Your task to perform on an android device: move a message to another label in the gmail app Image 0: 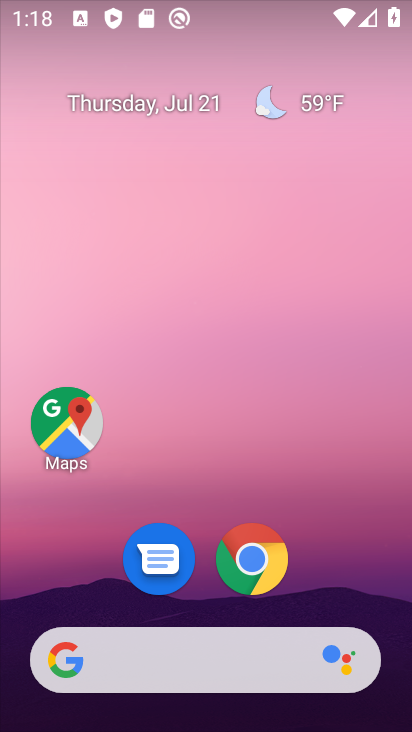
Step 0: drag from (169, 664) to (236, 23)
Your task to perform on an android device: move a message to another label in the gmail app Image 1: 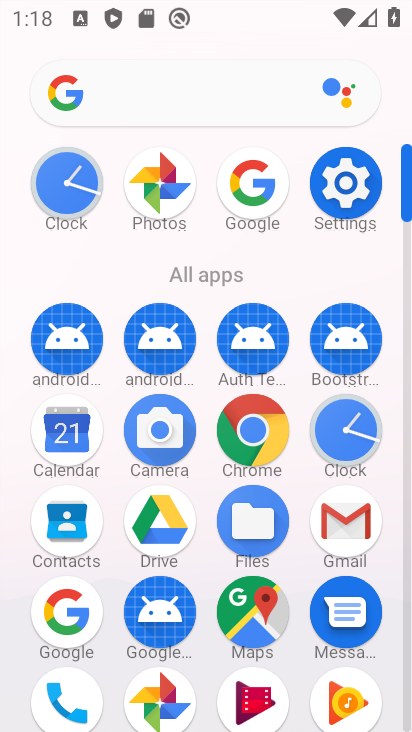
Step 1: drag from (119, 566) to (189, 331)
Your task to perform on an android device: move a message to another label in the gmail app Image 2: 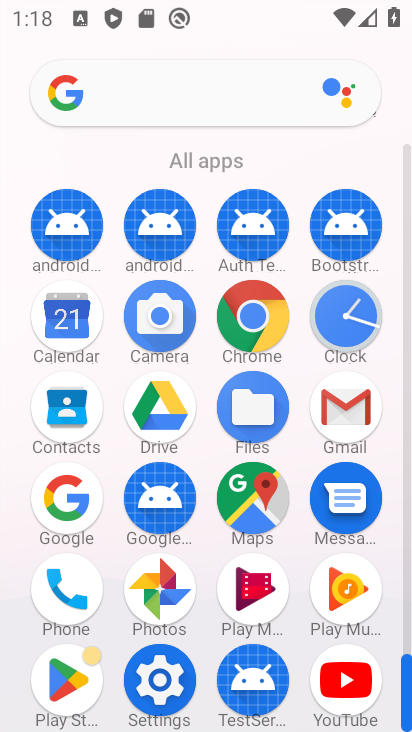
Step 2: click (359, 425)
Your task to perform on an android device: move a message to another label in the gmail app Image 3: 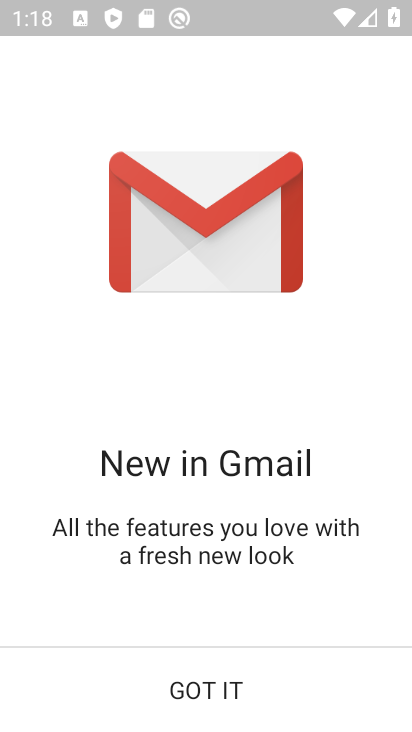
Step 3: click (271, 676)
Your task to perform on an android device: move a message to another label in the gmail app Image 4: 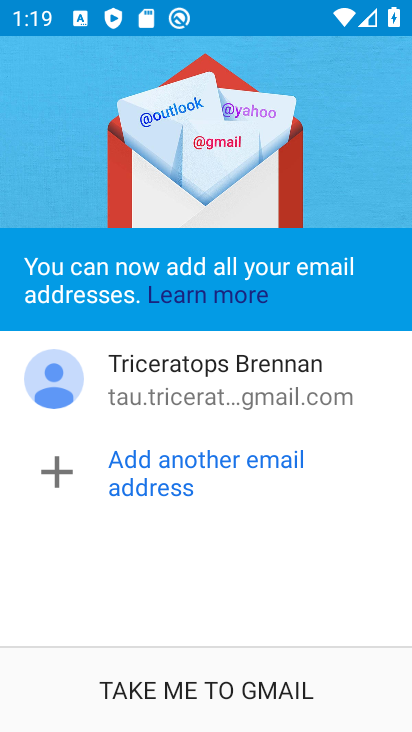
Step 4: click (272, 675)
Your task to perform on an android device: move a message to another label in the gmail app Image 5: 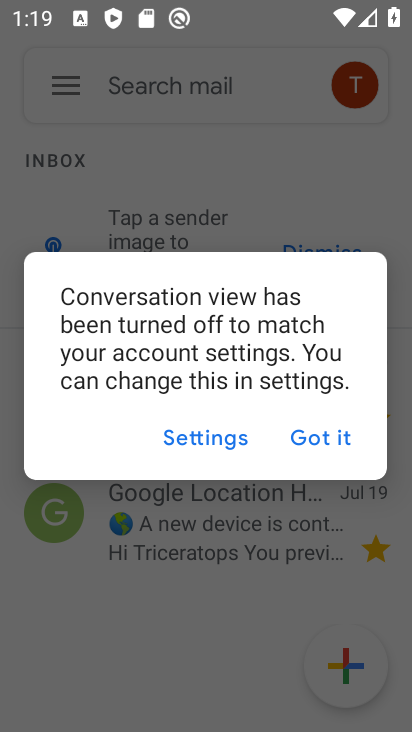
Step 5: click (333, 445)
Your task to perform on an android device: move a message to another label in the gmail app Image 6: 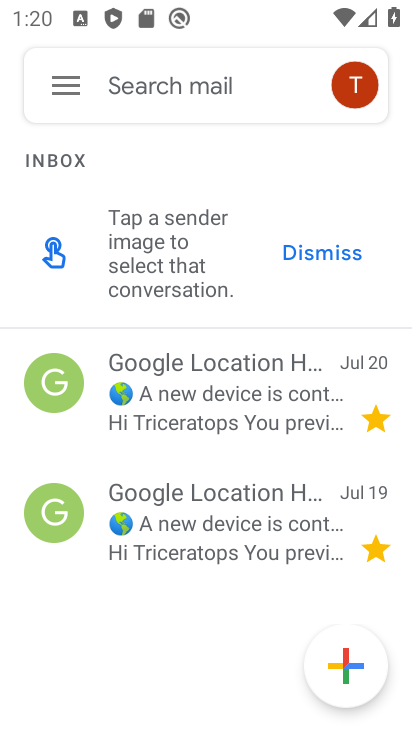
Step 6: click (235, 483)
Your task to perform on an android device: move a message to another label in the gmail app Image 7: 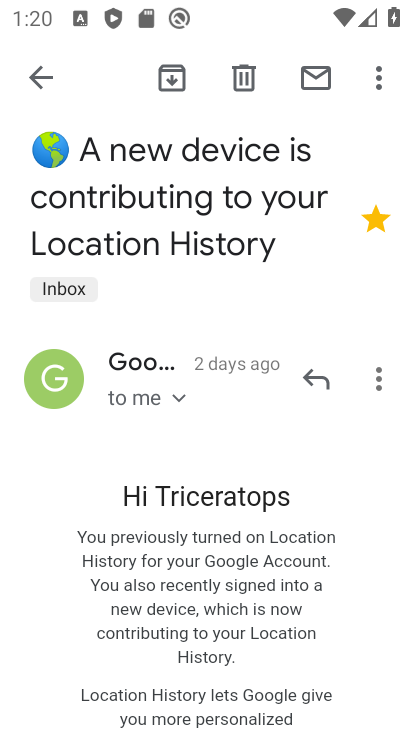
Step 7: click (373, 92)
Your task to perform on an android device: move a message to another label in the gmail app Image 8: 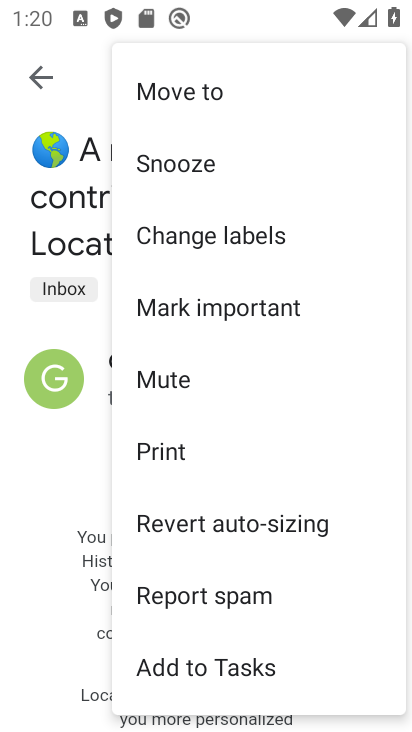
Step 8: click (236, 238)
Your task to perform on an android device: move a message to another label in the gmail app Image 9: 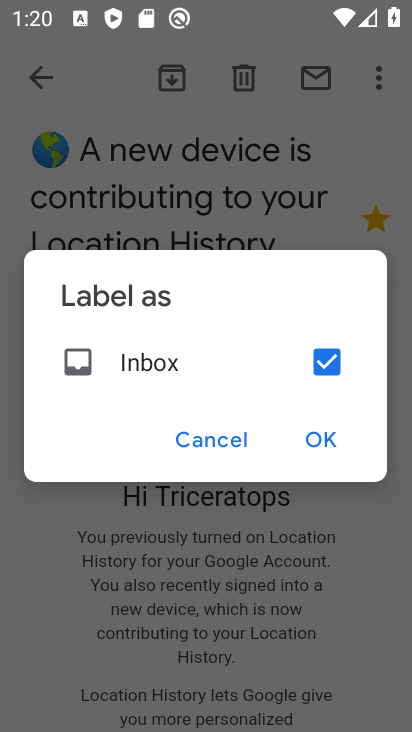
Step 9: click (307, 441)
Your task to perform on an android device: move a message to another label in the gmail app Image 10: 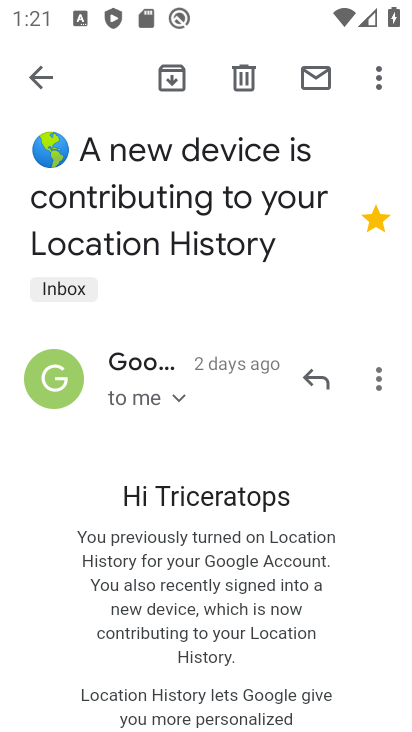
Step 10: task complete